Your task to perform on an android device: Open location settings Image 0: 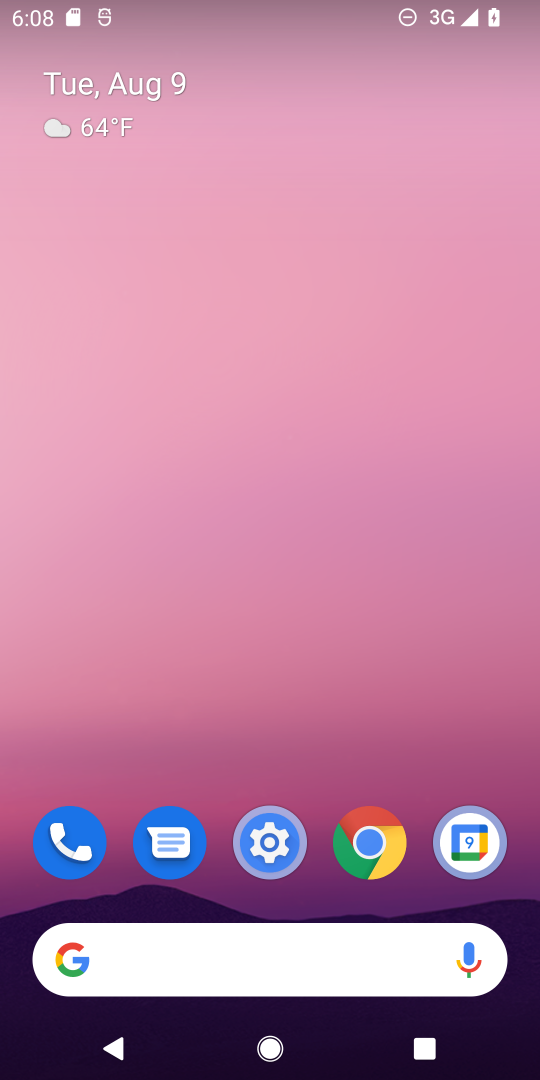
Step 0: drag from (256, 838) to (485, 165)
Your task to perform on an android device: Open location settings Image 1: 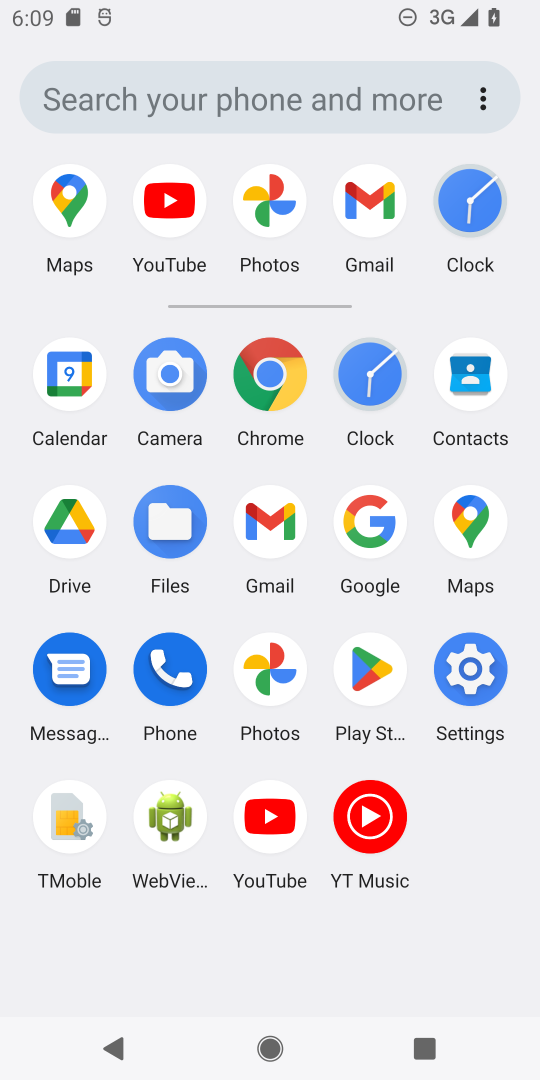
Step 1: click (468, 670)
Your task to perform on an android device: Open location settings Image 2: 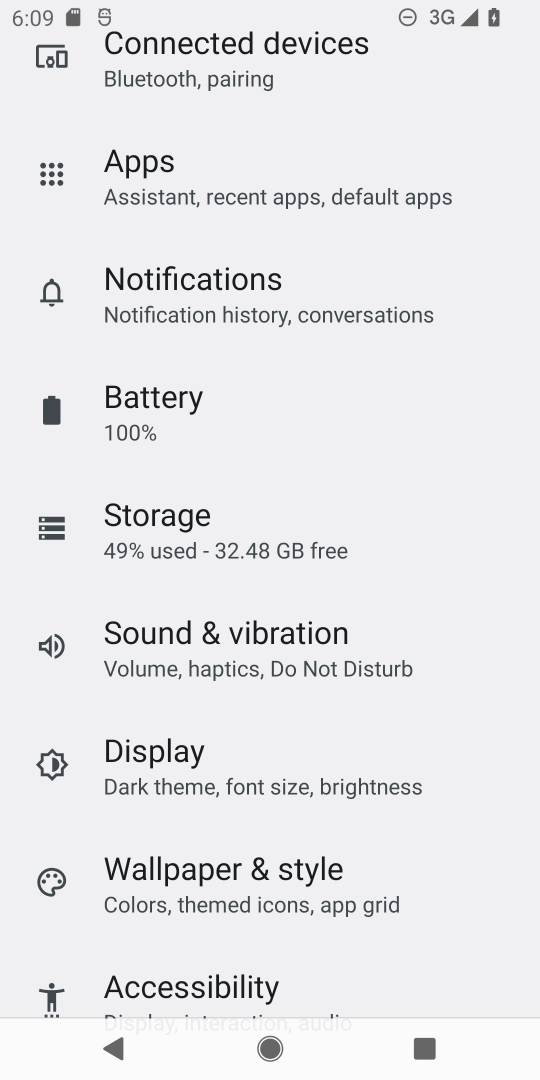
Step 2: drag from (312, 273) to (405, 912)
Your task to perform on an android device: Open location settings Image 3: 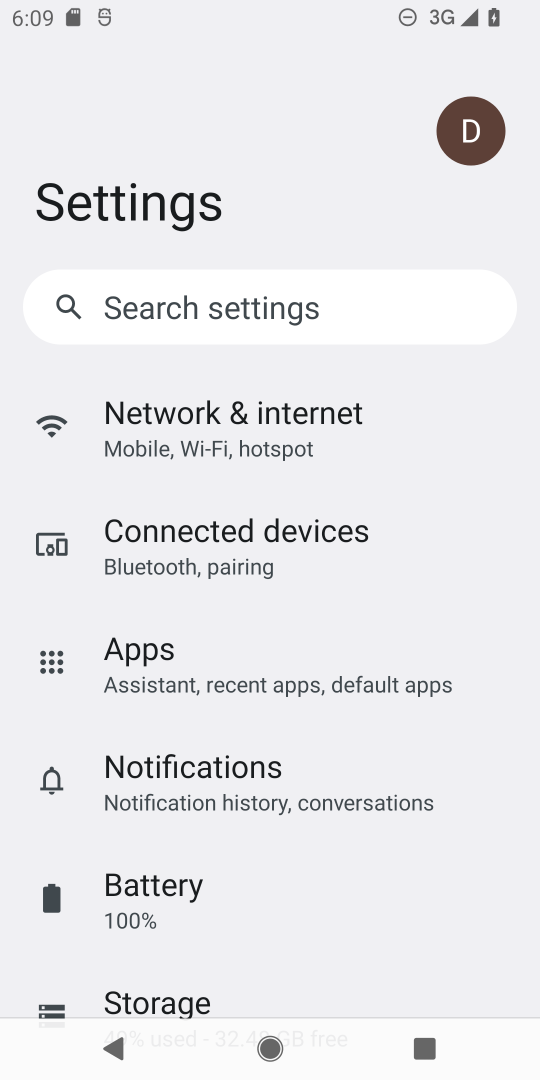
Step 3: drag from (238, 877) to (330, 256)
Your task to perform on an android device: Open location settings Image 4: 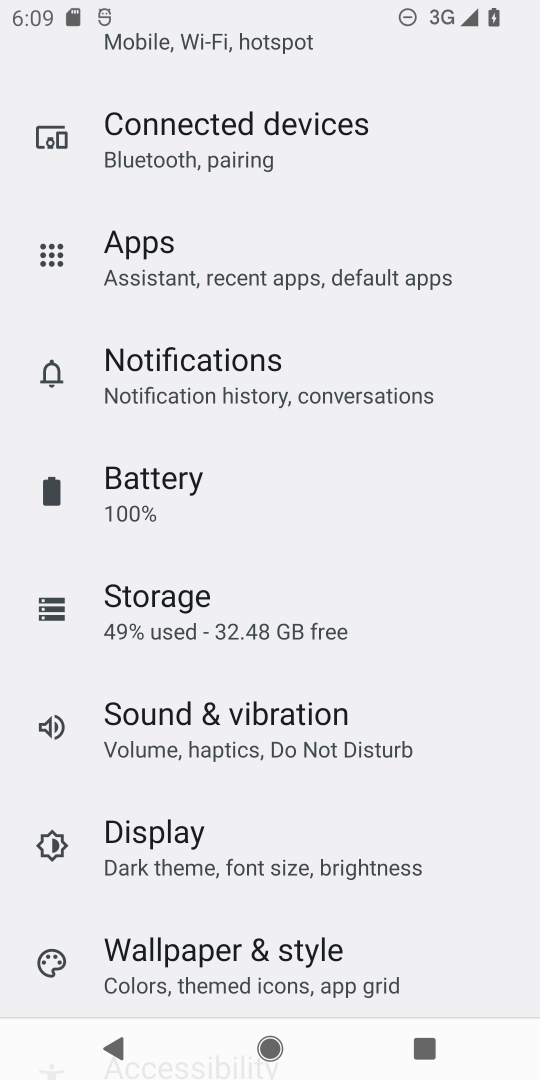
Step 4: drag from (171, 428) to (284, 989)
Your task to perform on an android device: Open location settings Image 5: 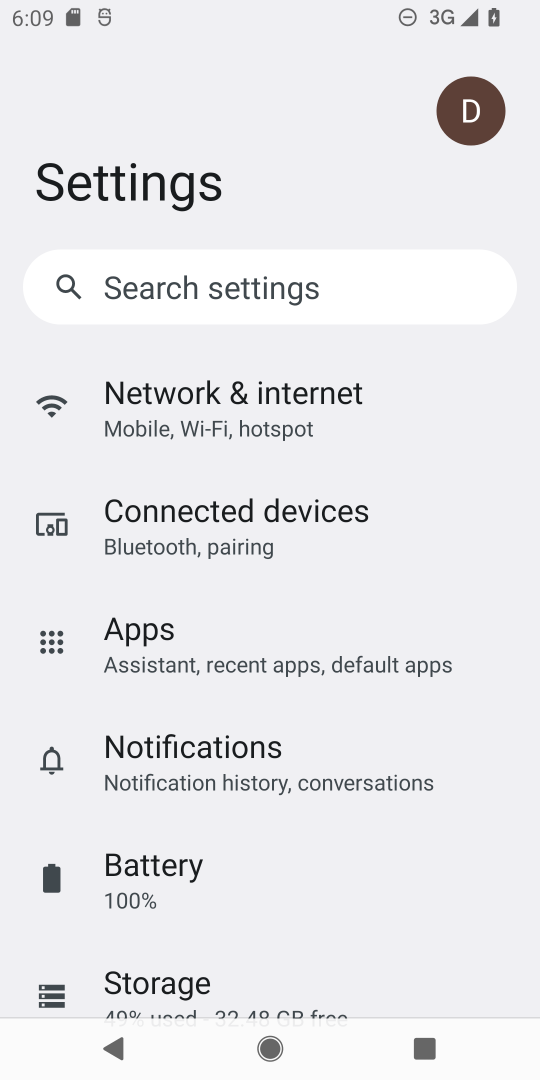
Step 5: drag from (284, 869) to (401, 134)
Your task to perform on an android device: Open location settings Image 6: 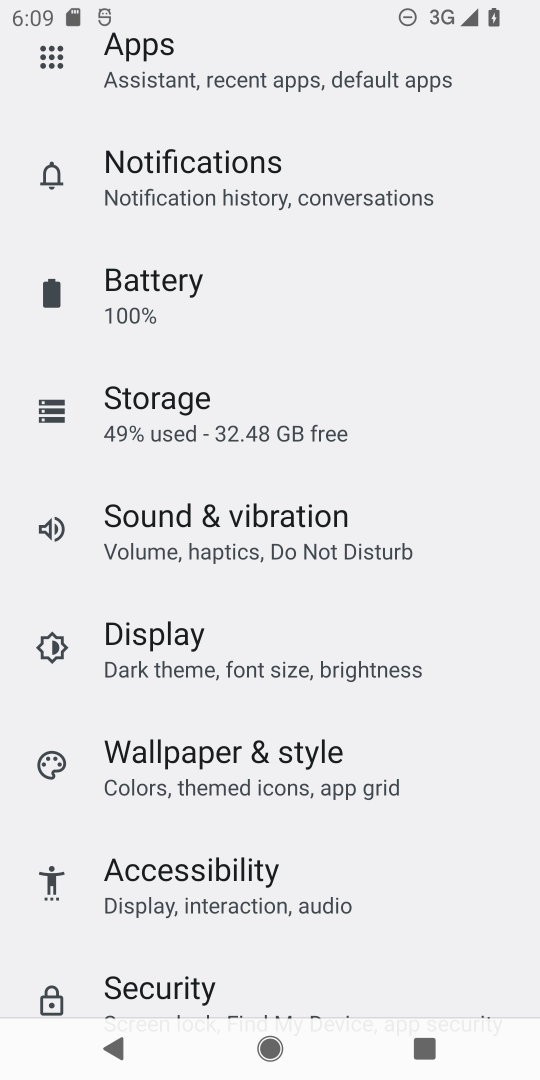
Step 6: drag from (236, 903) to (373, 227)
Your task to perform on an android device: Open location settings Image 7: 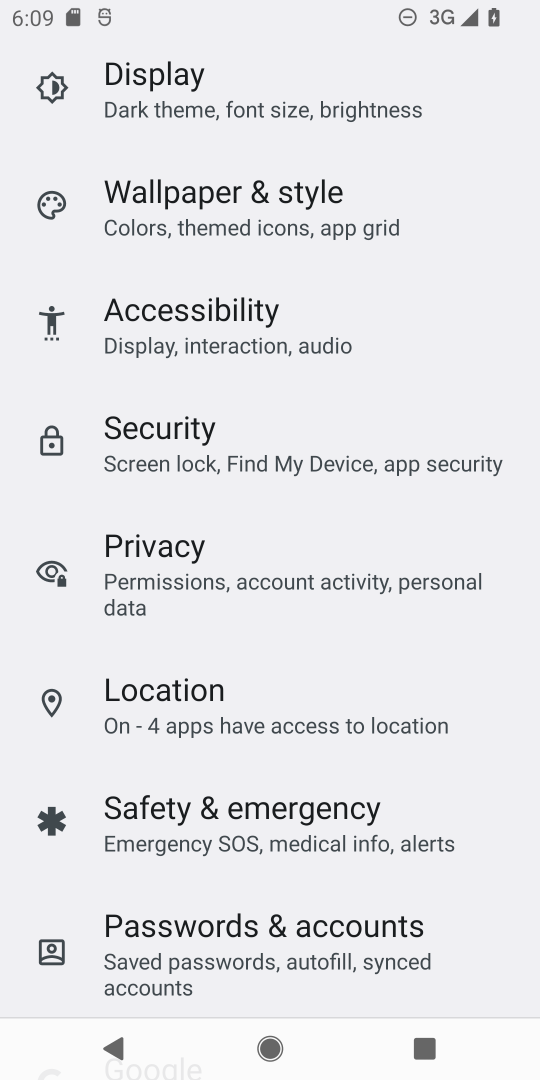
Step 7: click (240, 703)
Your task to perform on an android device: Open location settings Image 8: 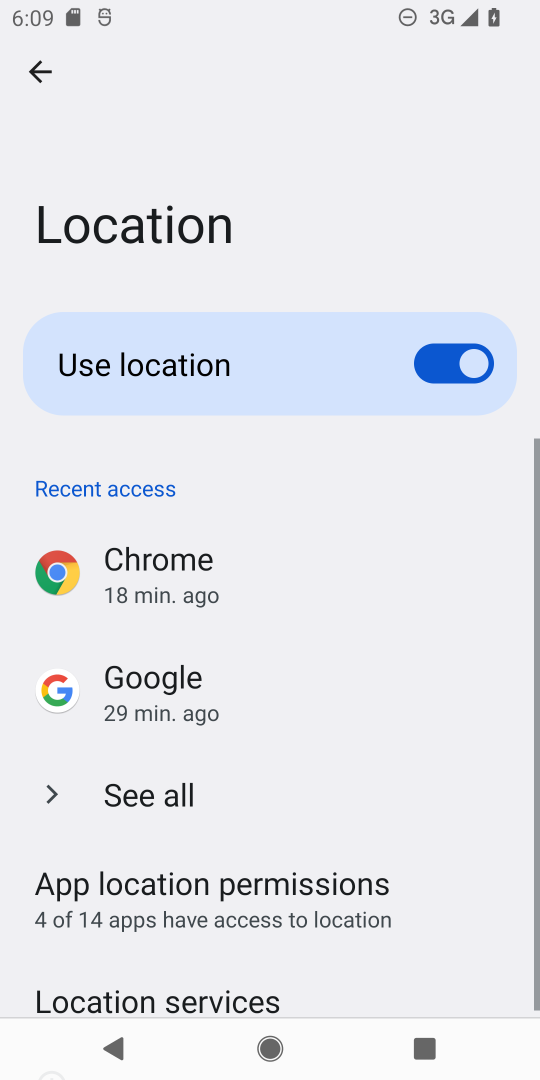
Step 8: task complete